Your task to perform on an android device: Go to calendar. Show me events next week Image 0: 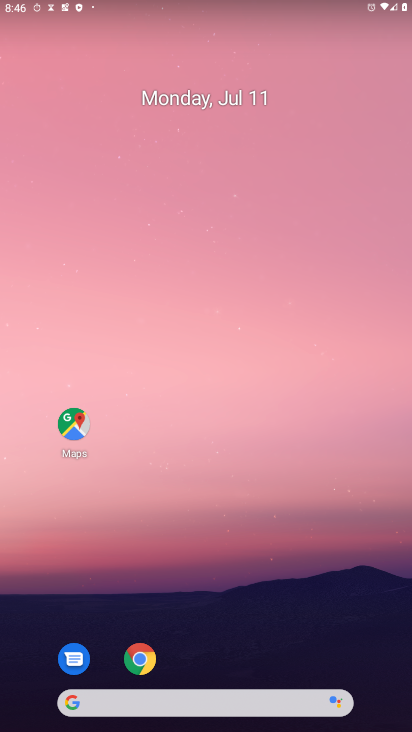
Step 0: drag from (166, 533) to (256, 29)
Your task to perform on an android device: Go to calendar. Show me events next week Image 1: 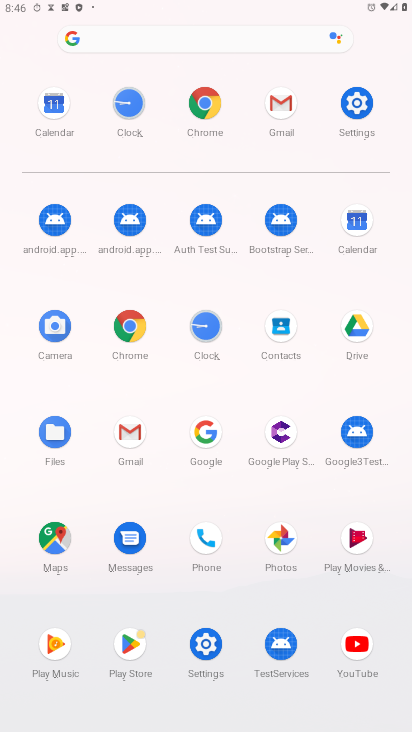
Step 1: click (353, 217)
Your task to perform on an android device: Go to calendar. Show me events next week Image 2: 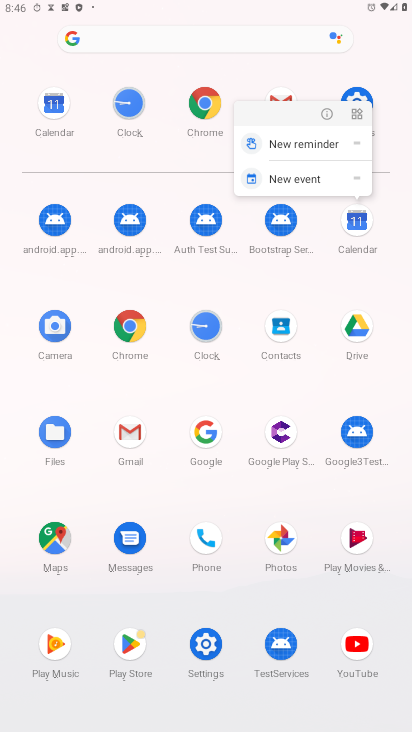
Step 2: click (323, 108)
Your task to perform on an android device: Go to calendar. Show me events next week Image 3: 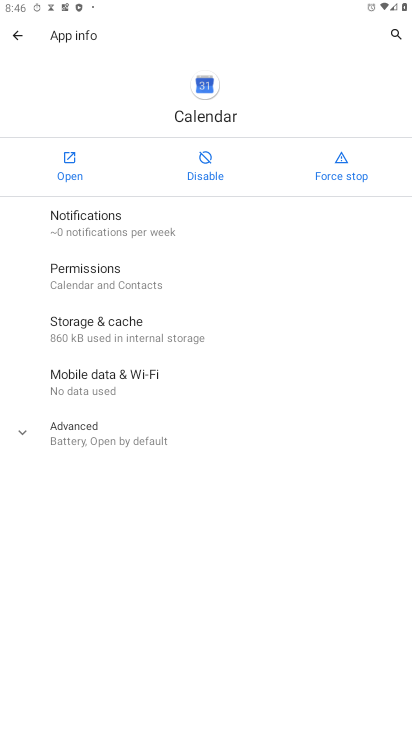
Step 3: click (76, 177)
Your task to perform on an android device: Go to calendar. Show me events next week Image 4: 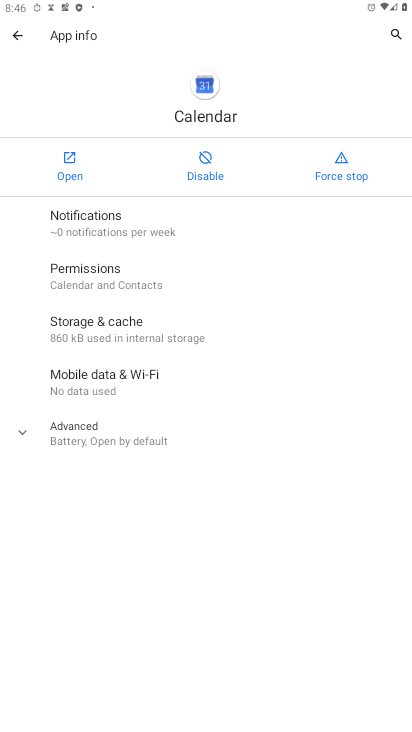
Step 4: click (76, 177)
Your task to perform on an android device: Go to calendar. Show me events next week Image 5: 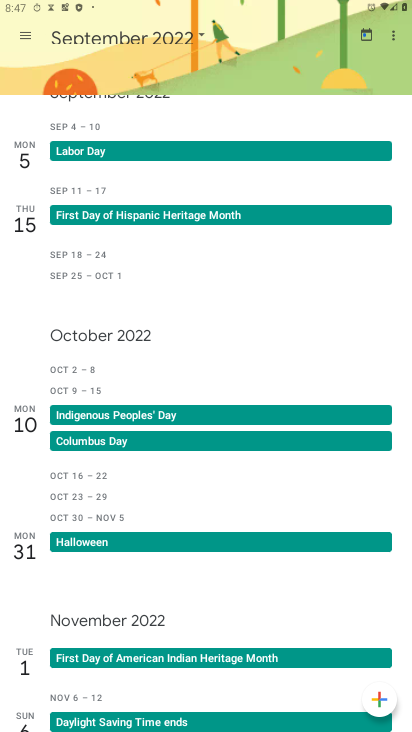
Step 5: drag from (252, 579) to (288, 320)
Your task to perform on an android device: Go to calendar. Show me events next week Image 6: 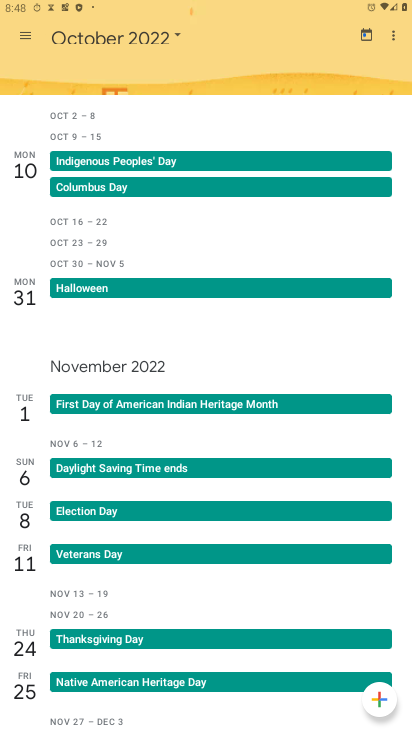
Step 6: click (130, 36)
Your task to perform on an android device: Go to calendar. Show me events next week Image 7: 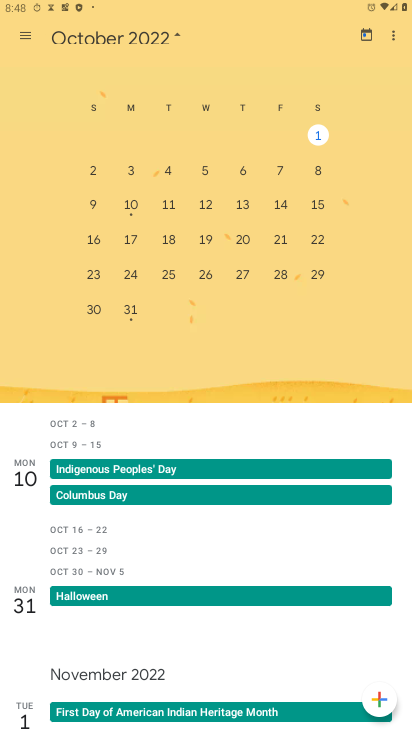
Step 7: drag from (96, 234) to (408, 212)
Your task to perform on an android device: Go to calendar. Show me events next week Image 8: 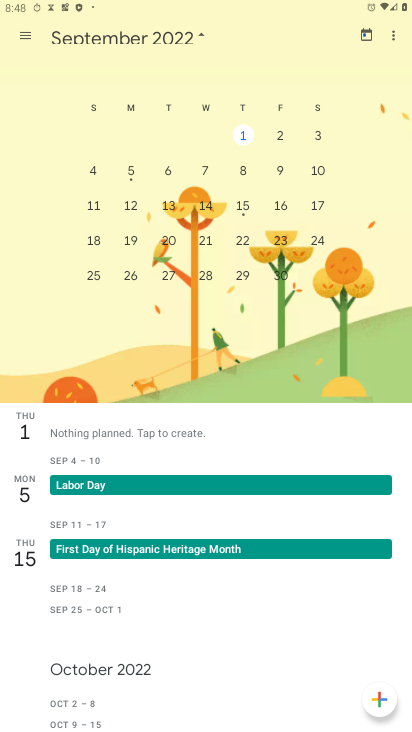
Step 8: drag from (267, 639) to (380, 264)
Your task to perform on an android device: Go to calendar. Show me events next week Image 9: 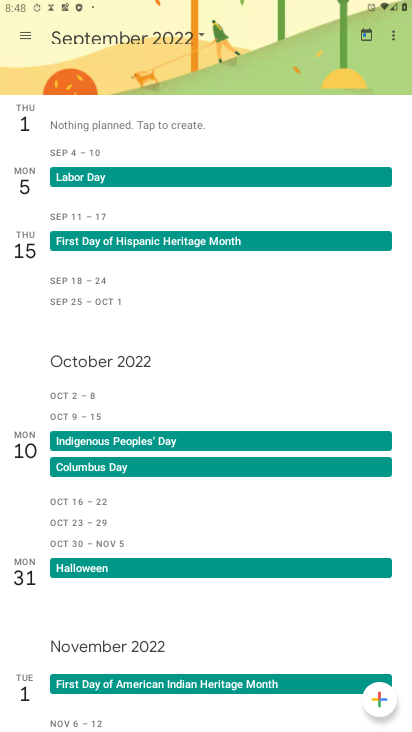
Step 9: click (128, 39)
Your task to perform on an android device: Go to calendar. Show me events next week Image 10: 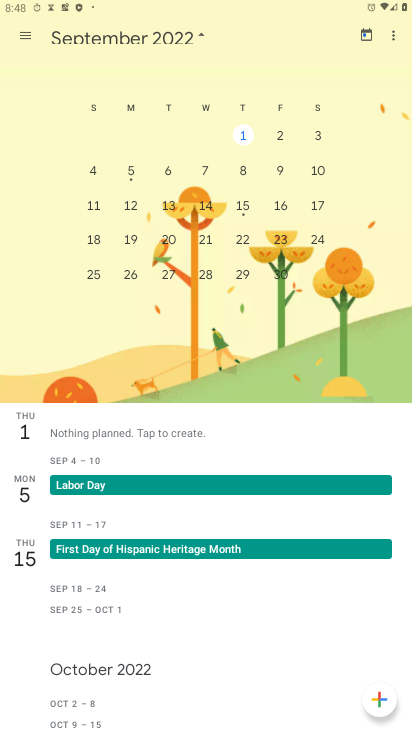
Step 10: drag from (58, 180) to (411, 196)
Your task to perform on an android device: Go to calendar. Show me events next week Image 11: 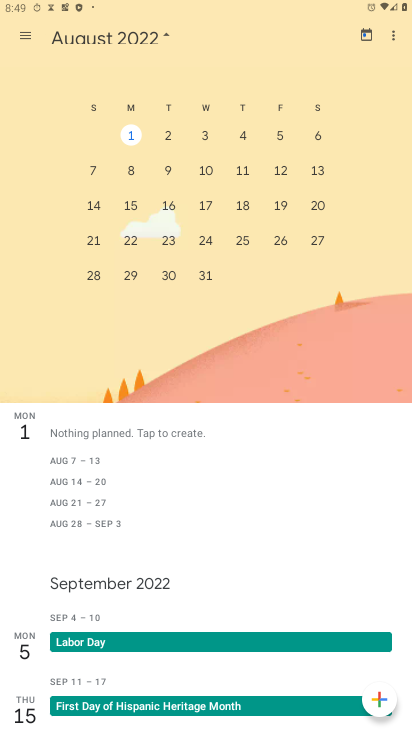
Step 11: drag from (97, 225) to (412, 100)
Your task to perform on an android device: Go to calendar. Show me events next week Image 12: 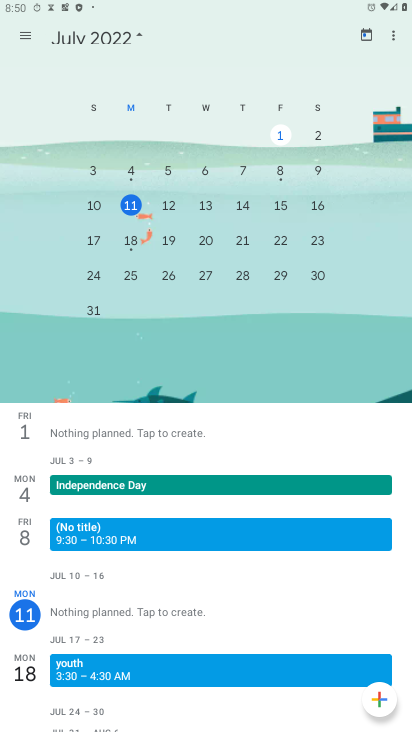
Step 12: drag from (234, 640) to (336, 84)
Your task to perform on an android device: Go to calendar. Show me events next week Image 13: 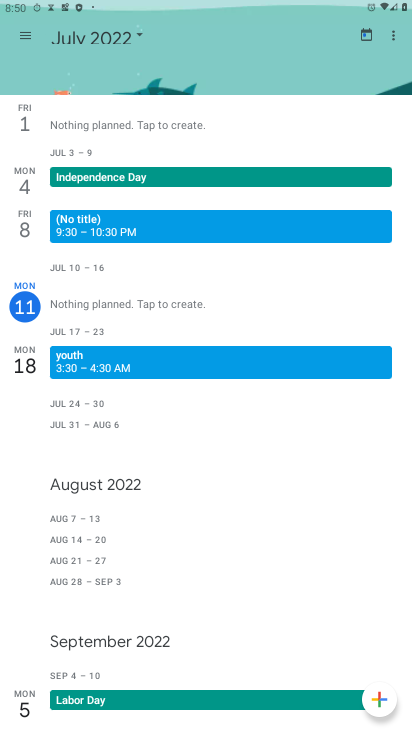
Step 13: click (192, 280)
Your task to perform on an android device: Go to calendar. Show me events next week Image 14: 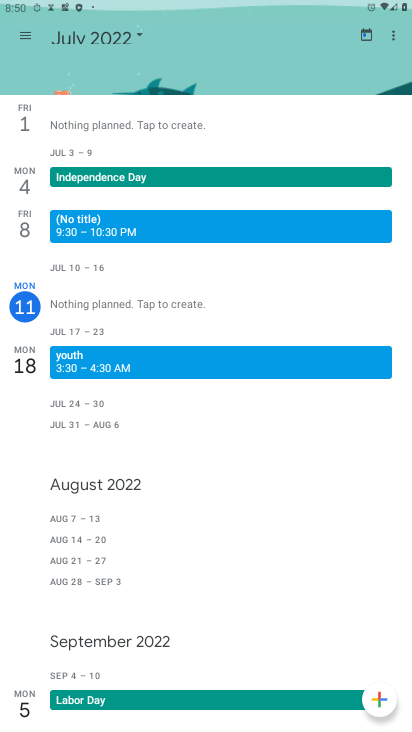
Step 14: click (99, 38)
Your task to perform on an android device: Go to calendar. Show me events next week Image 15: 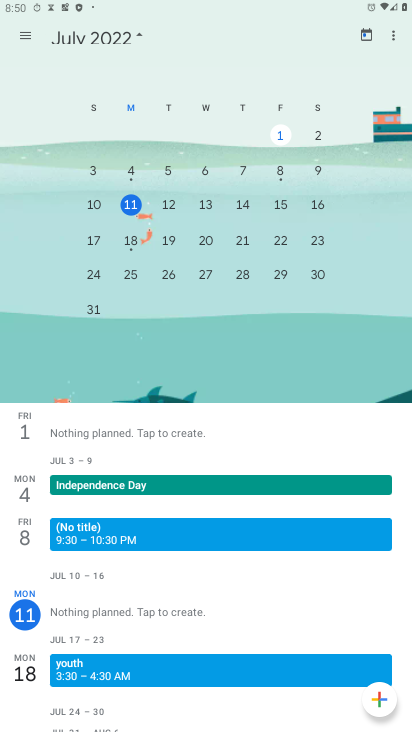
Step 15: click (315, 202)
Your task to perform on an android device: Go to calendar. Show me events next week Image 16: 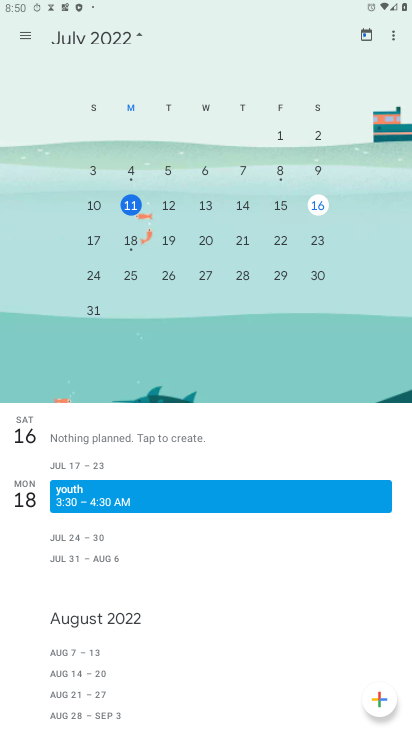
Step 16: press home button
Your task to perform on an android device: Go to calendar. Show me events next week Image 17: 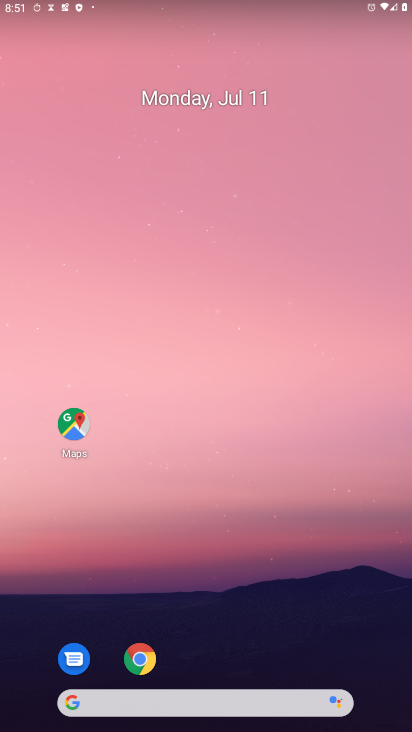
Step 17: drag from (210, 543) to (279, 64)
Your task to perform on an android device: Go to calendar. Show me events next week Image 18: 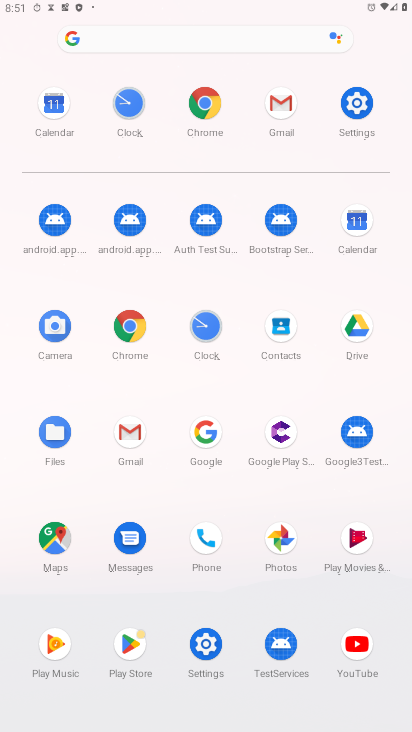
Step 18: click (345, 230)
Your task to perform on an android device: Go to calendar. Show me events next week Image 19: 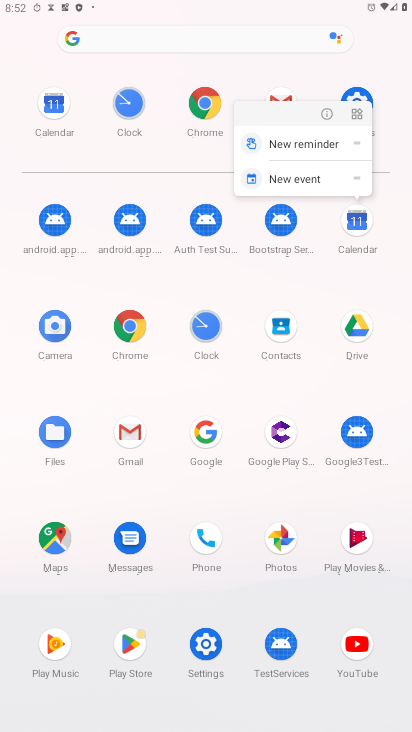
Step 19: click (321, 118)
Your task to perform on an android device: Go to calendar. Show me events next week Image 20: 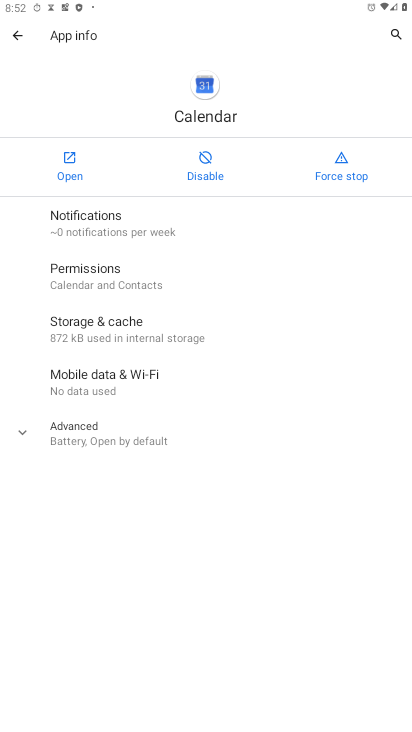
Step 20: click (75, 168)
Your task to perform on an android device: Go to calendar. Show me events next week Image 21: 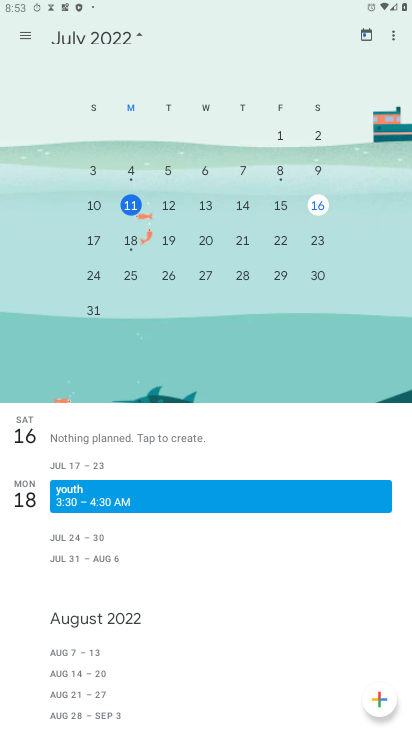
Step 21: click (318, 197)
Your task to perform on an android device: Go to calendar. Show me events next week Image 22: 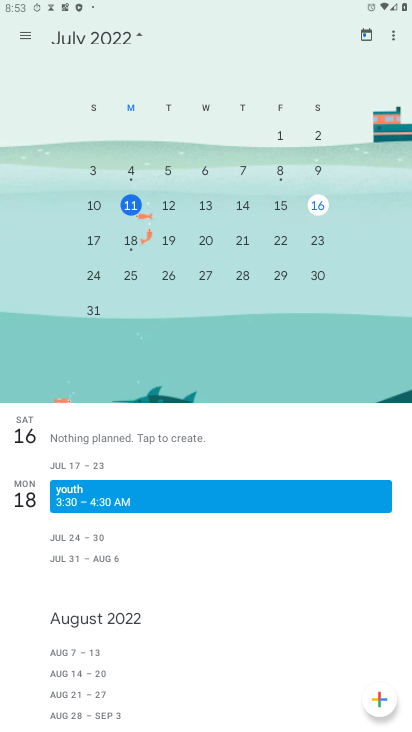
Step 22: task complete